Your task to perform on an android device: turn on notifications settings in the gmail app Image 0: 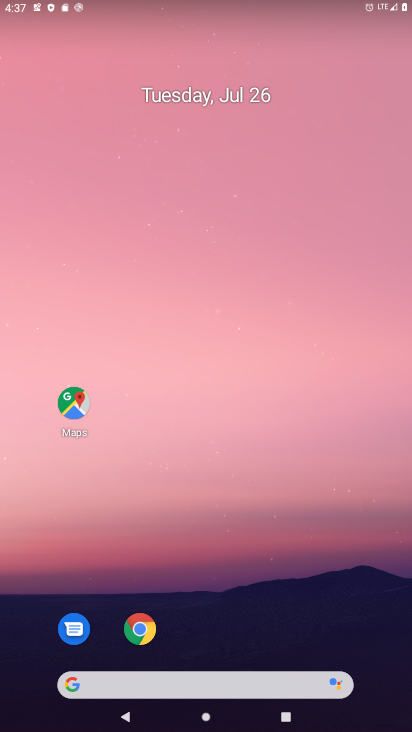
Step 0: drag from (226, 689) to (243, 220)
Your task to perform on an android device: turn on notifications settings in the gmail app Image 1: 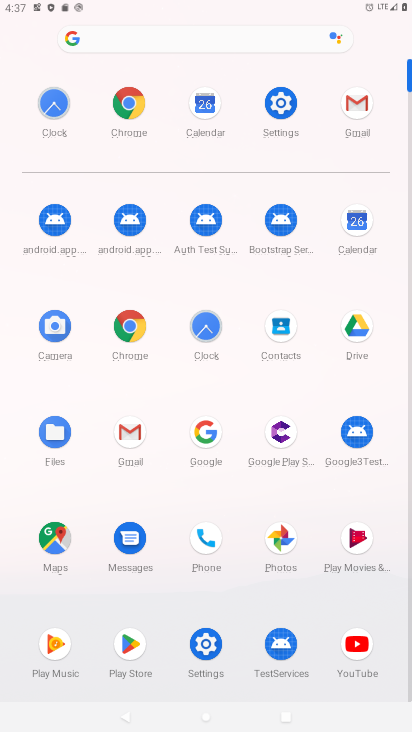
Step 1: click (130, 441)
Your task to perform on an android device: turn on notifications settings in the gmail app Image 2: 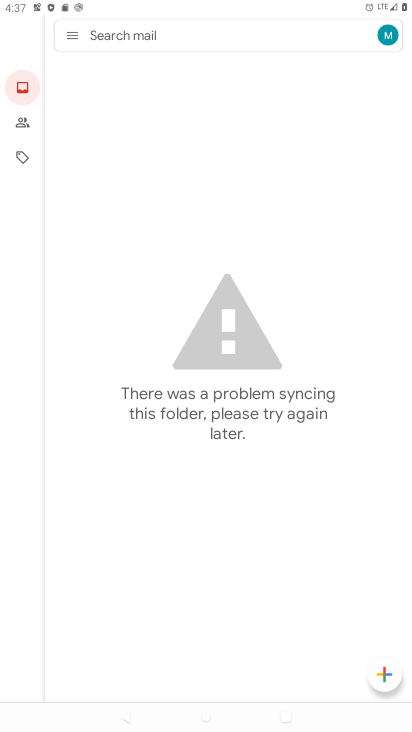
Step 2: click (73, 35)
Your task to perform on an android device: turn on notifications settings in the gmail app Image 3: 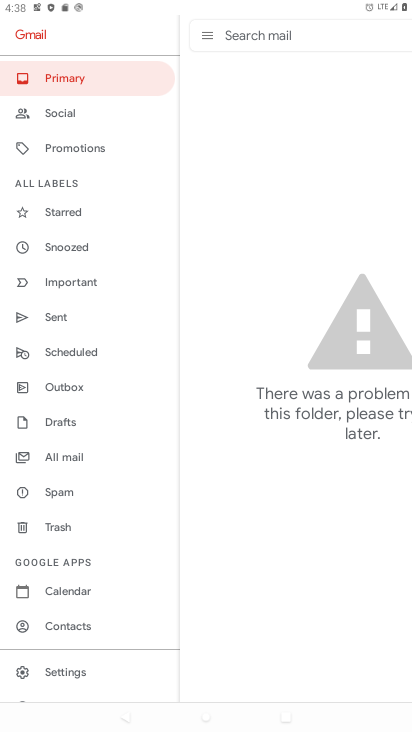
Step 3: click (64, 674)
Your task to perform on an android device: turn on notifications settings in the gmail app Image 4: 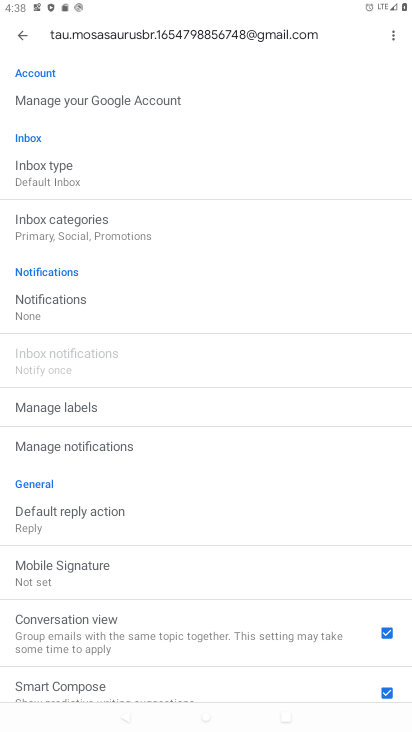
Step 4: click (38, 298)
Your task to perform on an android device: turn on notifications settings in the gmail app Image 5: 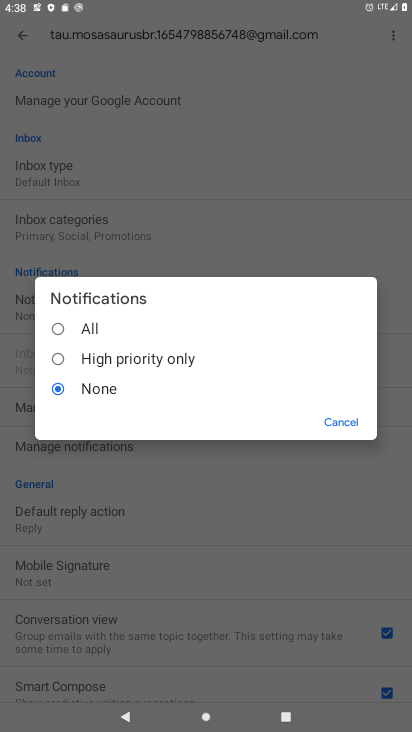
Step 5: click (58, 327)
Your task to perform on an android device: turn on notifications settings in the gmail app Image 6: 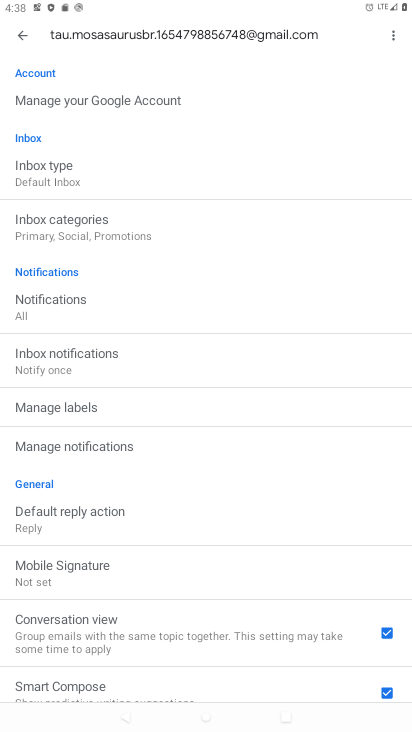
Step 6: task complete